Your task to perform on an android device: Clear the shopping cart on costco. Search for beats solo 3 on costco, select the first entry, add it to the cart, then select checkout. Image 0: 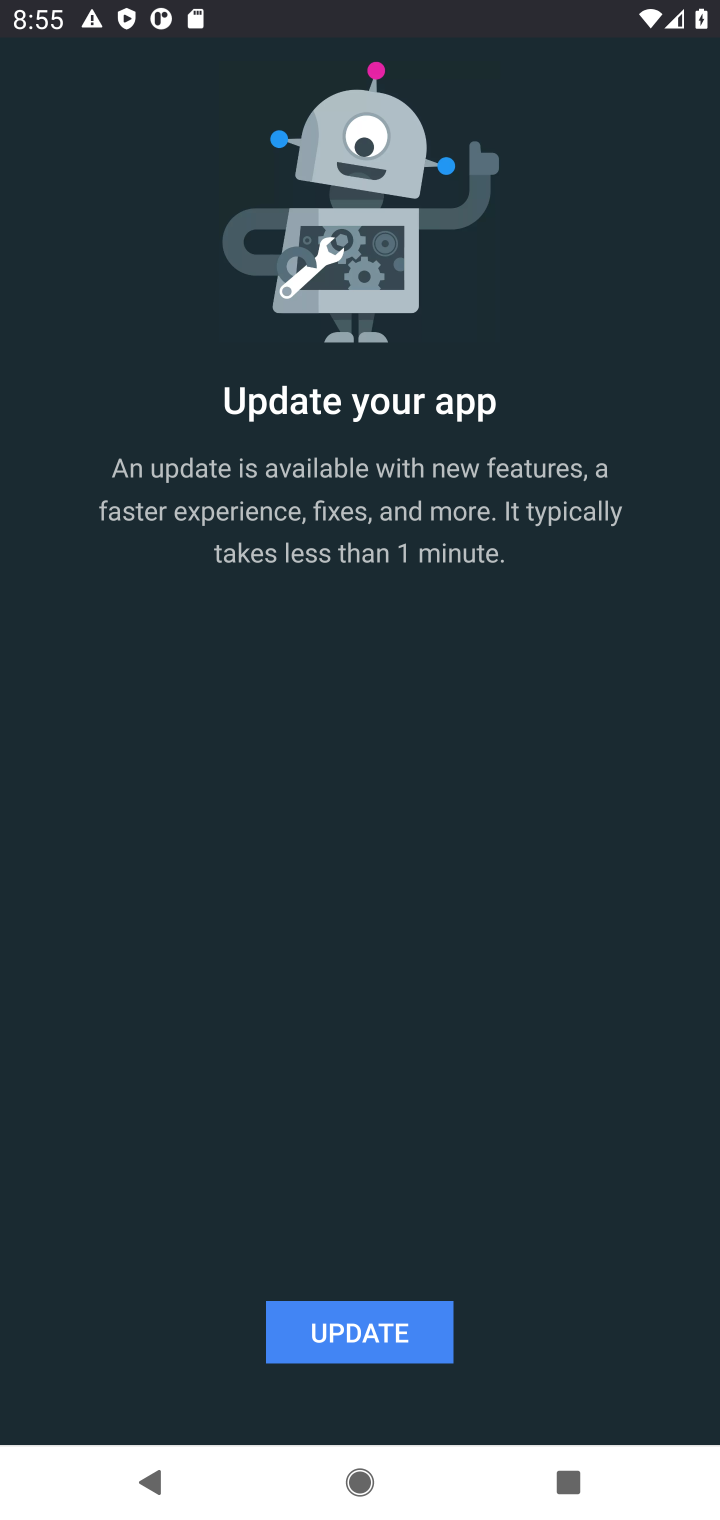
Step 0: press home button
Your task to perform on an android device: Clear the shopping cart on costco. Search for beats solo 3 on costco, select the first entry, add it to the cart, then select checkout. Image 1: 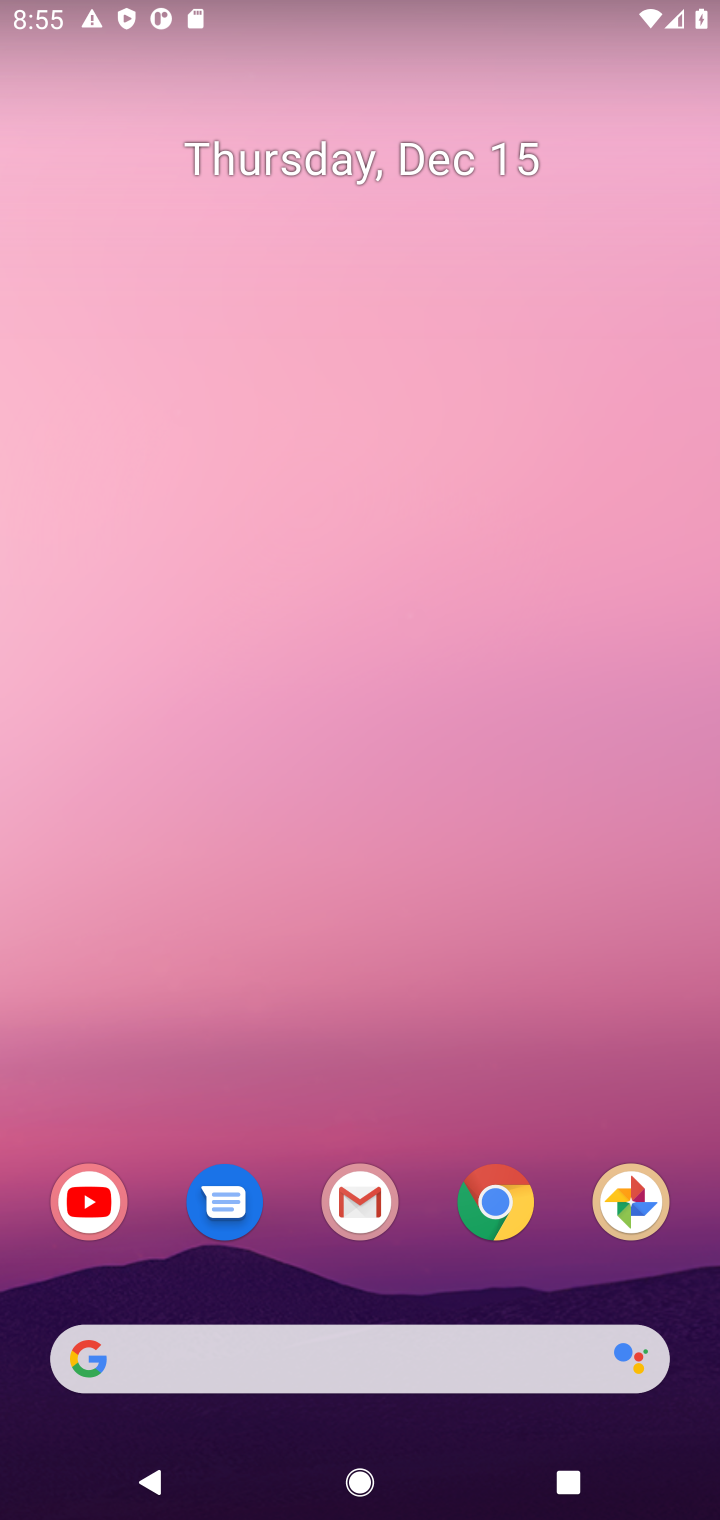
Step 1: click (491, 1200)
Your task to perform on an android device: Clear the shopping cart on costco. Search for beats solo 3 on costco, select the first entry, add it to the cart, then select checkout. Image 2: 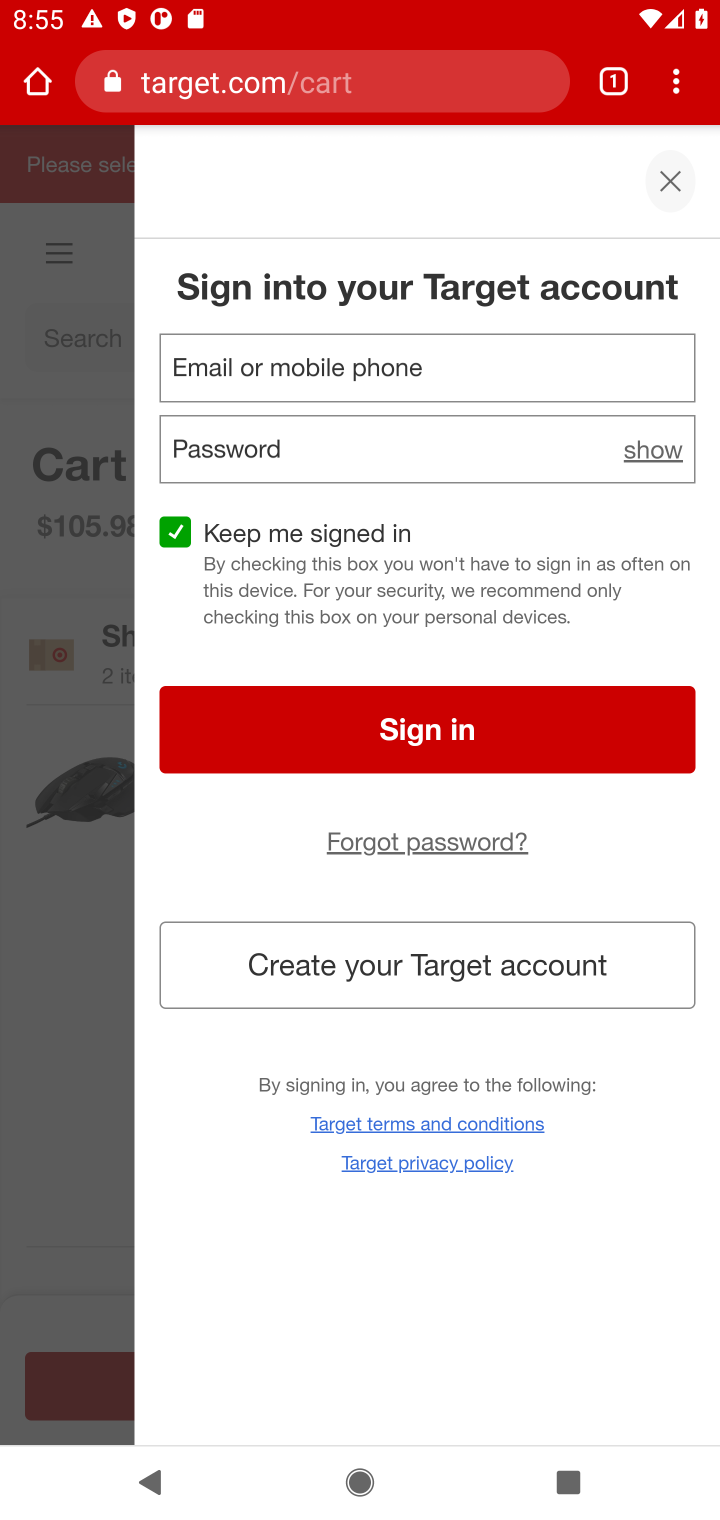
Step 2: click (228, 91)
Your task to perform on an android device: Clear the shopping cart on costco. Search for beats solo 3 on costco, select the first entry, add it to the cart, then select checkout. Image 3: 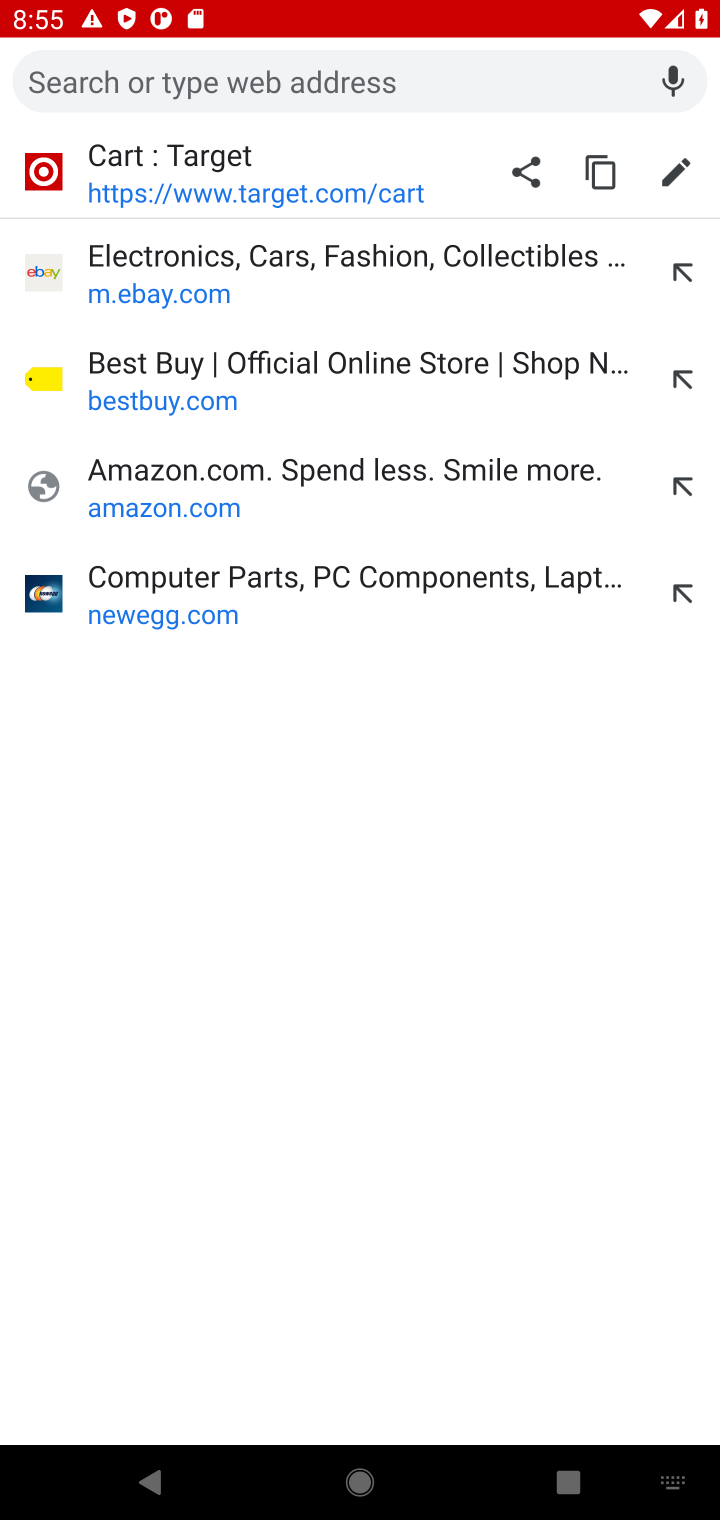
Step 3: type "costco.com"
Your task to perform on an android device: Clear the shopping cart on costco. Search for beats solo 3 on costco, select the first entry, add it to the cart, then select checkout. Image 4: 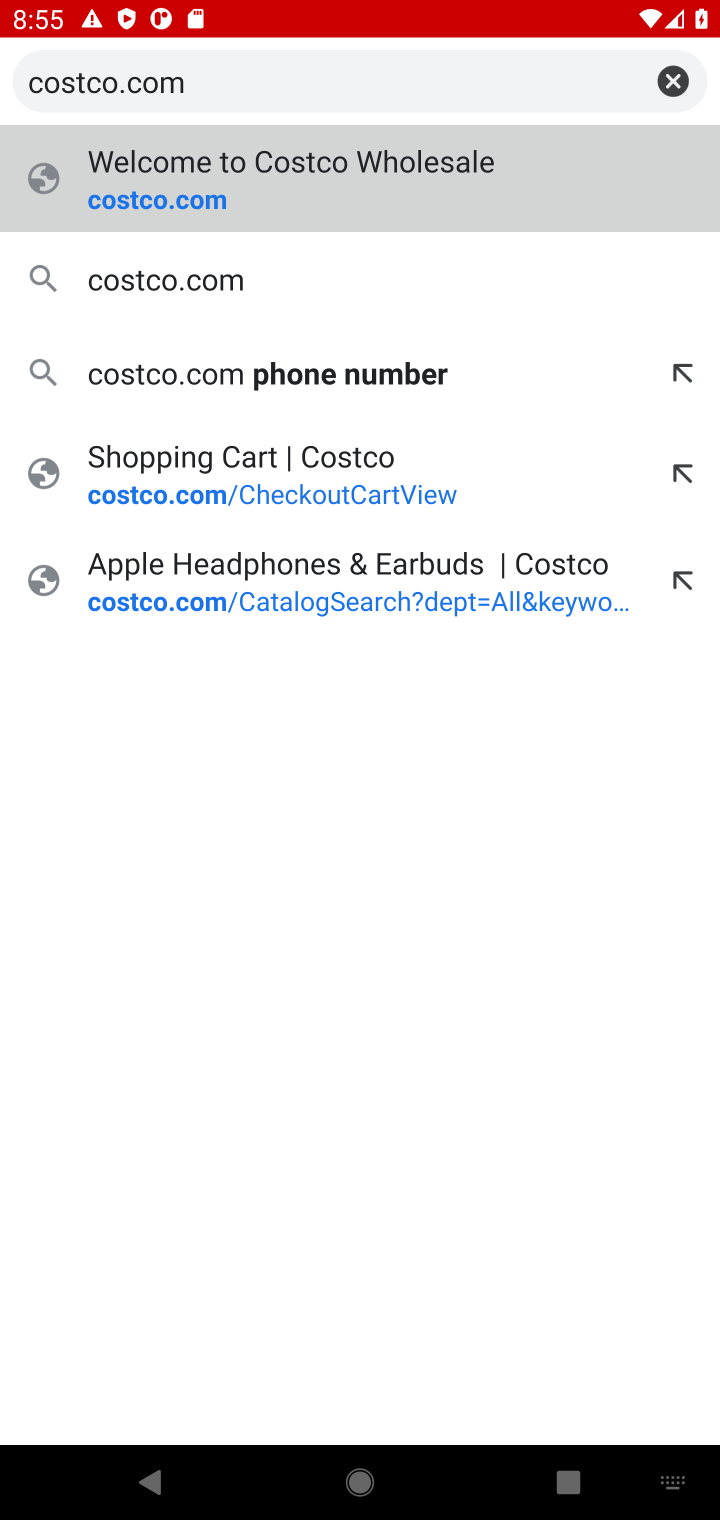
Step 4: click (174, 199)
Your task to perform on an android device: Clear the shopping cart on costco. Search for beats solo 3 on costco, select the first entry, add it to the cart, then select checkout. Image 5: 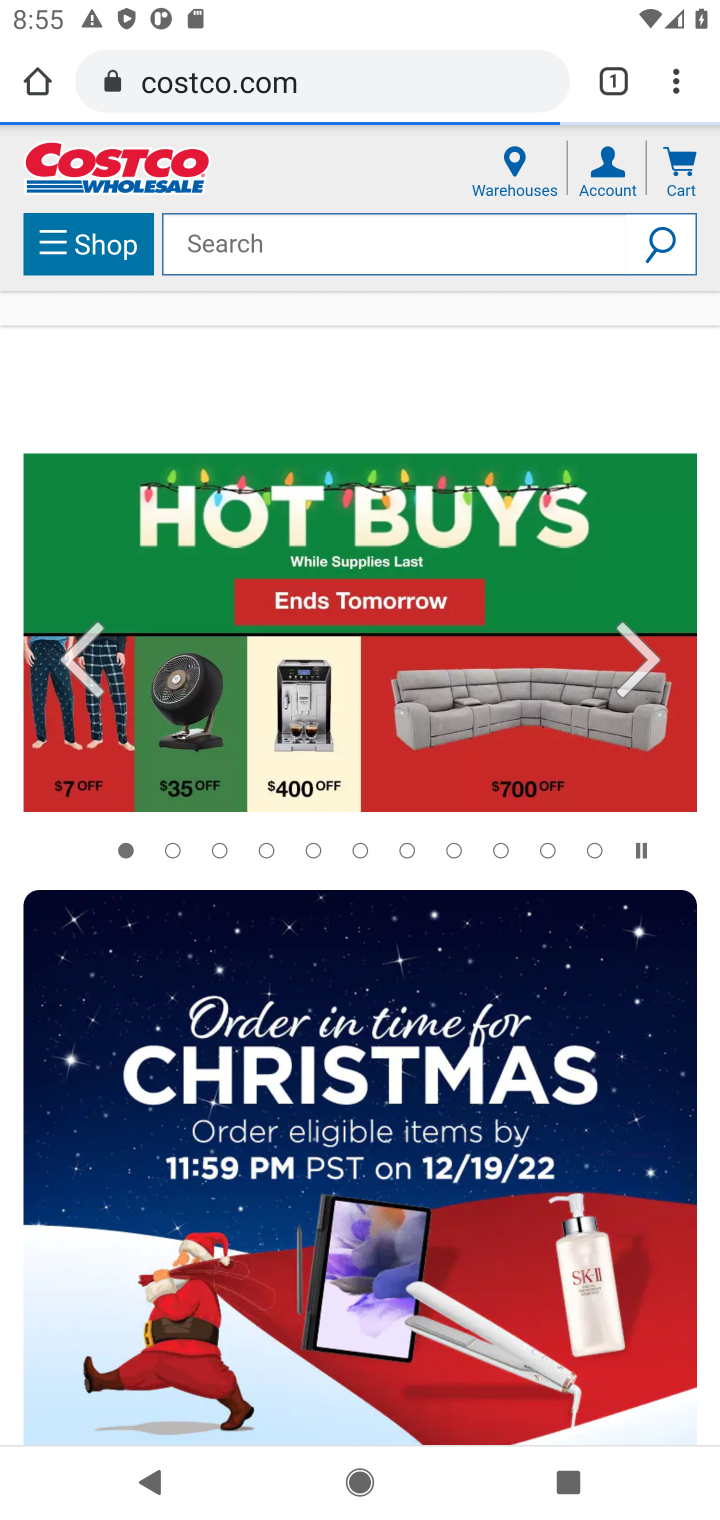
Step 5: click (676, 183)
Your task to perform on an android device: Clear the shopping cart on costco. Search for beats solo 3 on costco, select the first entry, add it to the cart, then select checkout. Image 6: 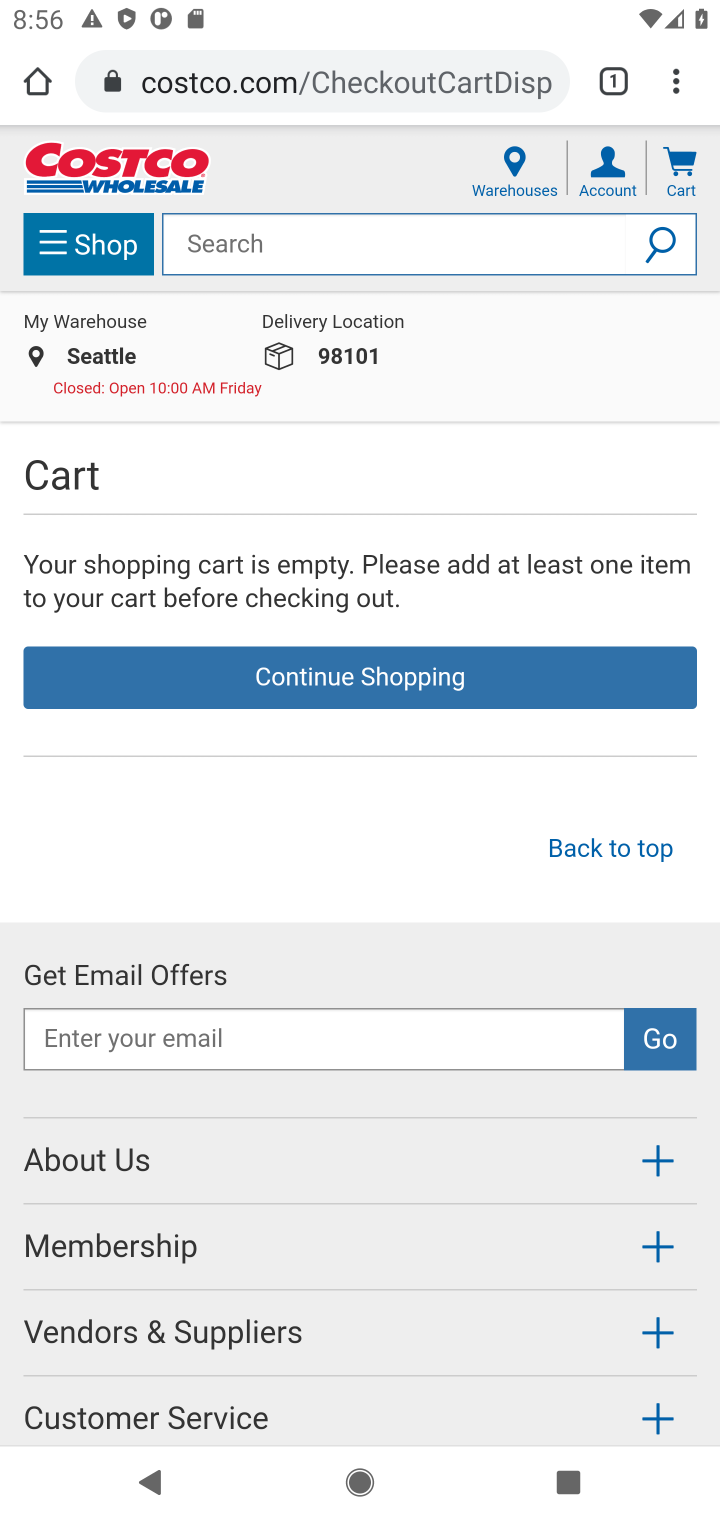
Step 6: click (232, 246)
Your task to perform on an android device: Clear the shopping cart on costco. Search for beats solo 3 on costco, select the first entry, add it to the cart, then select checkout. Image 7: 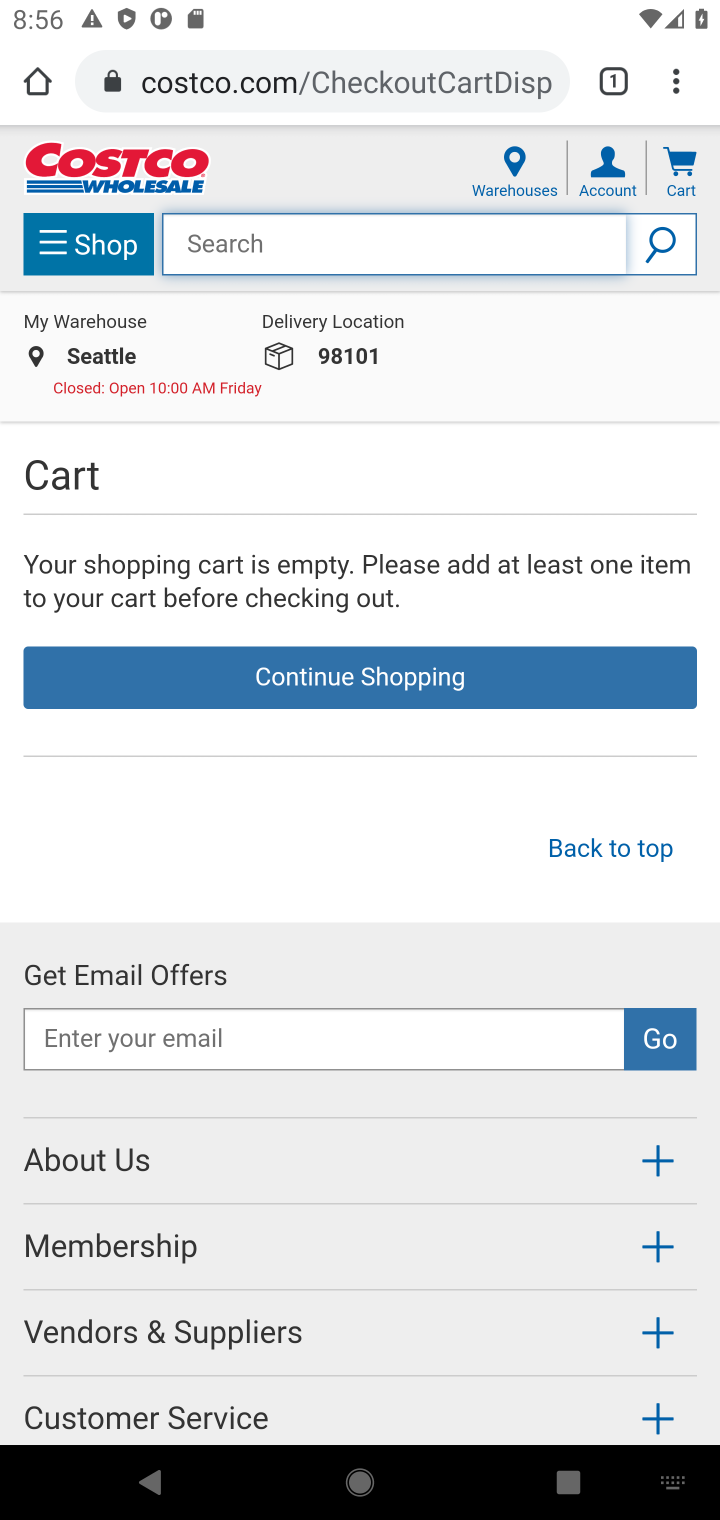
Step 7: type "beats solo 3"
Your task to perform on an android device: Clear the shopping cart on costco. Search for beats solo 3 on costco, select the first entry, add it to the cart, then select checkout. Image 8: 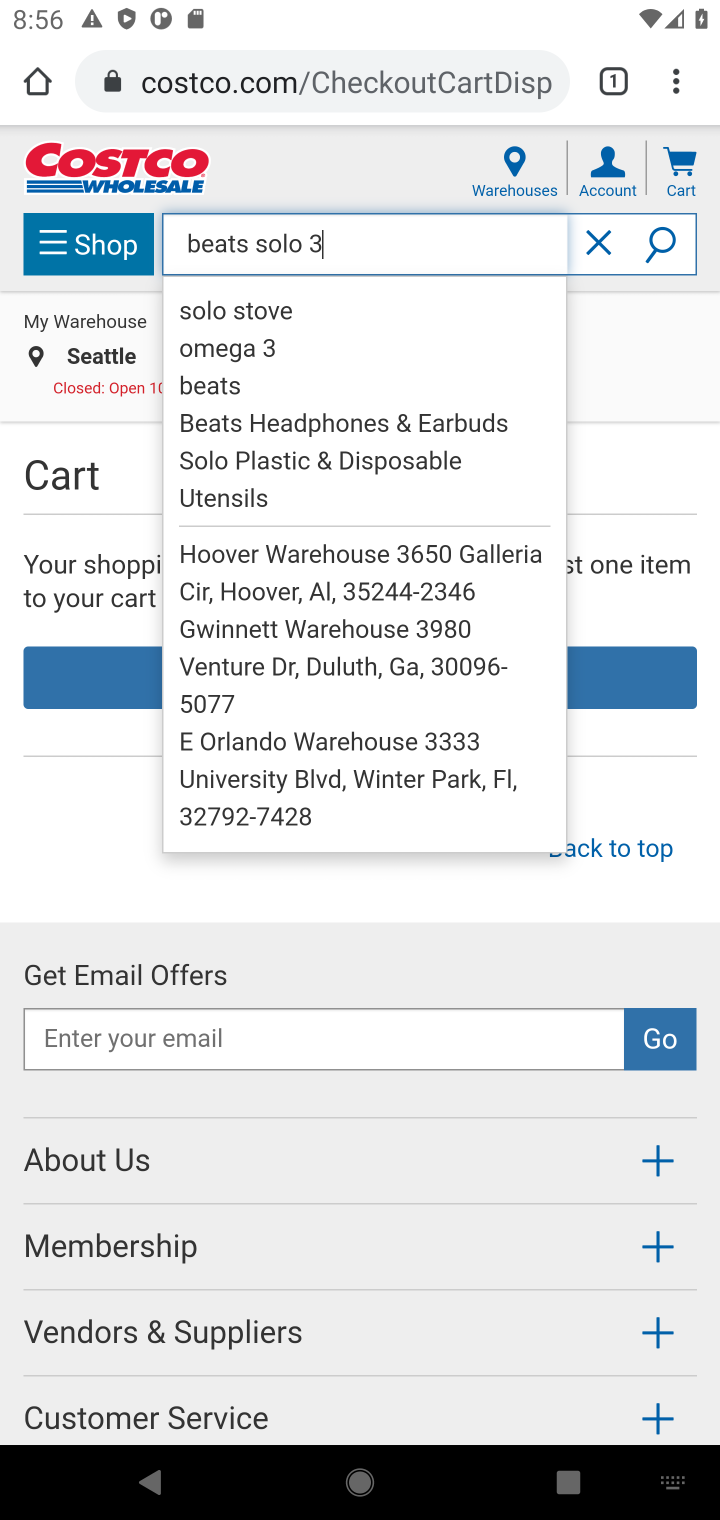
Step 8: click (665, 246)
Your task to perform on an android device: Clear the shopping cart on costco. Search for beats solo 3 on costco, select the first entry, add it to the cart, then select checkout. Image 9: 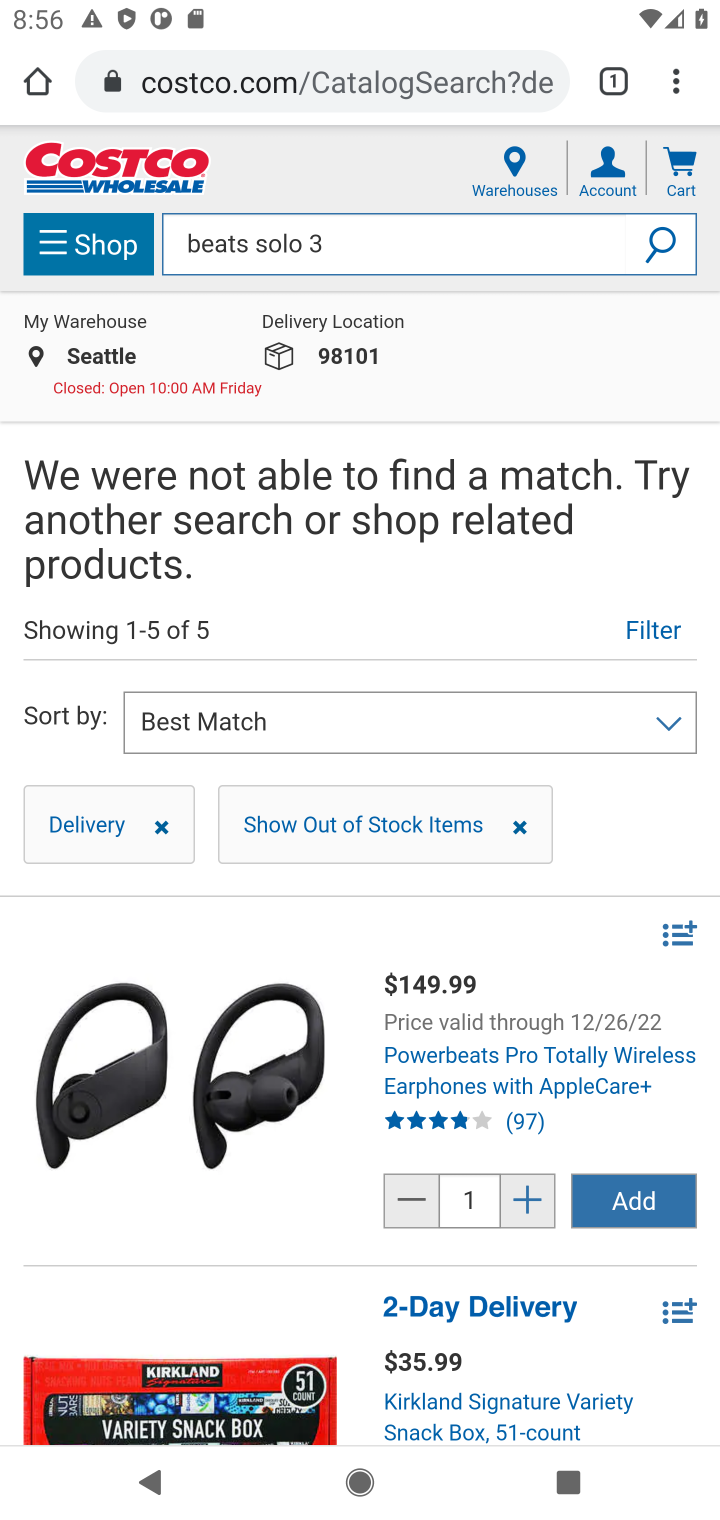
Step 9: task complete